Your task to perform on an android device: toggle notification dots Image 0: 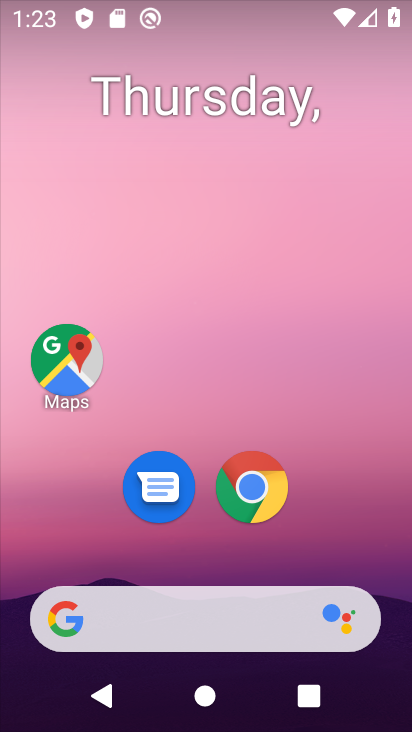
Step 0: drag from (249, 363) to (213, 57)
Your task to perform on an android device: toggle notification dots Image 1: 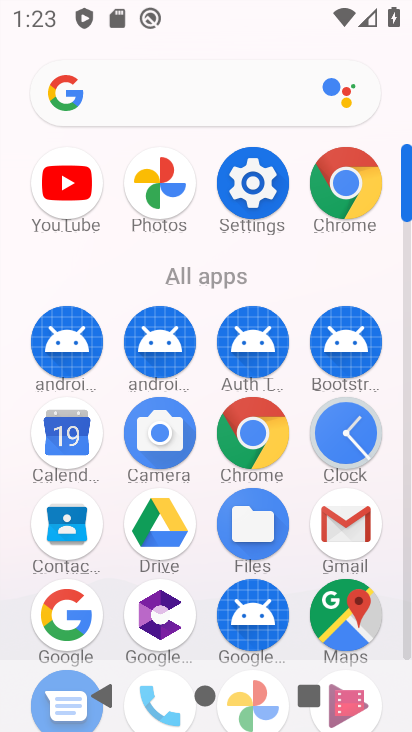
Step 1: drag from (264, 183) to (89, 205)
Your task to perform on an android device: toggle notification dots Image 2: 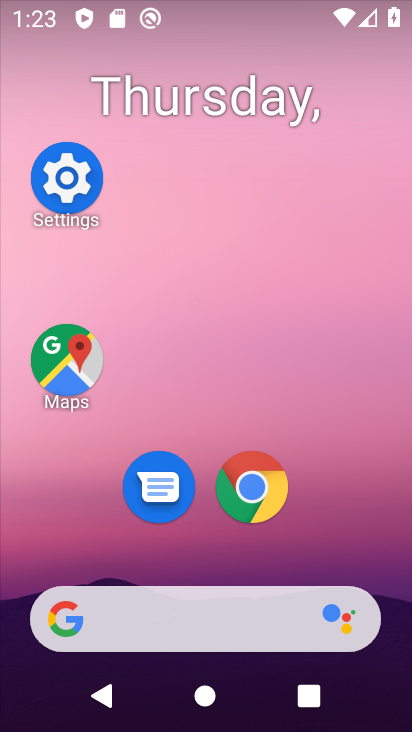
Step 2: click (77, 193)
Your task to perform on an android device: toggle notification dots Image 3: 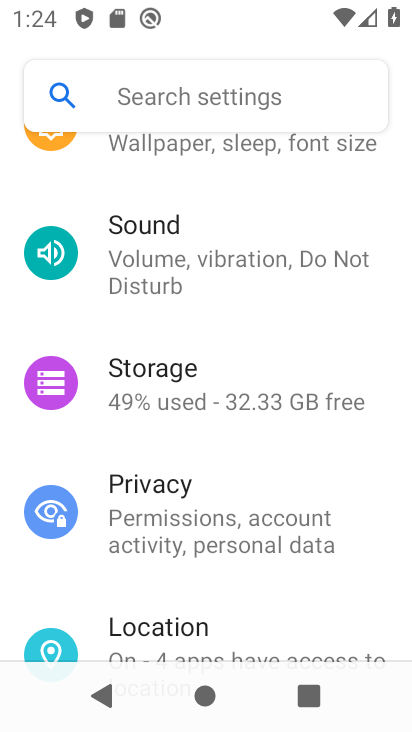
Step 3: drag from (272, 233) to (354, 581)
Your task to perform on an android device: toggle notification dots Image 4: 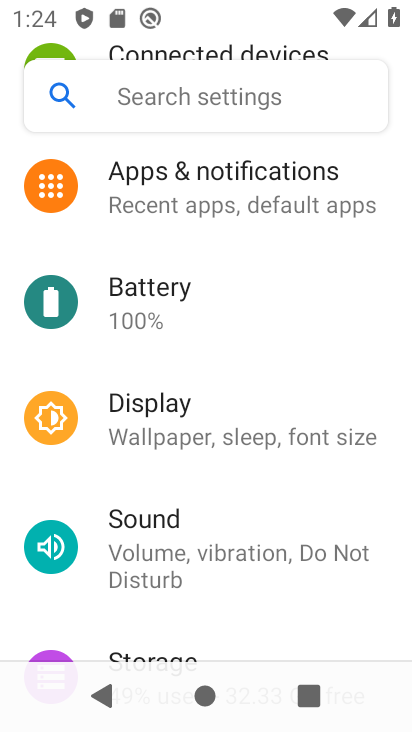
Step 4: click (171, 190)
Your task to perform on an android device: toggle notification dots Image 5: 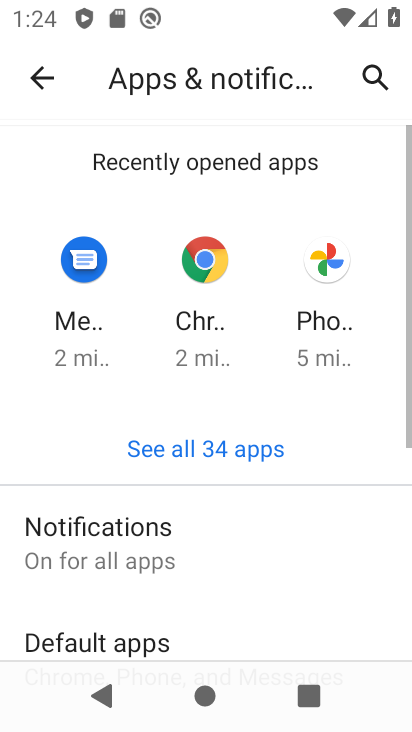
Step 5: click (192, 535)
Your task to perform on an android device: toggle notification dots Image 6: 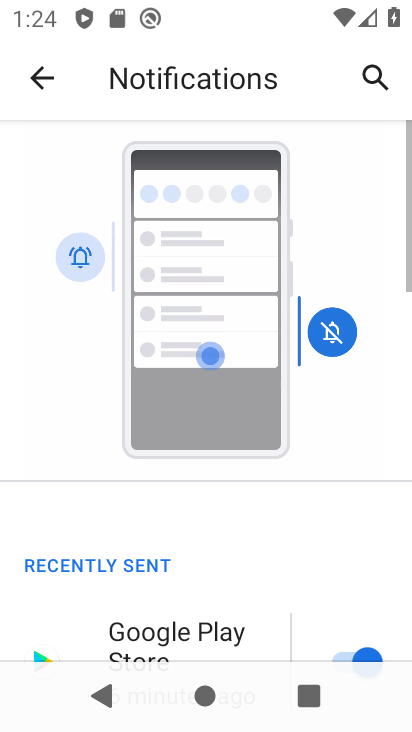
Step 6: drag from (299, 597) to (226, 97)
Your task to perform on an android device: toggle notification dots Image 7: 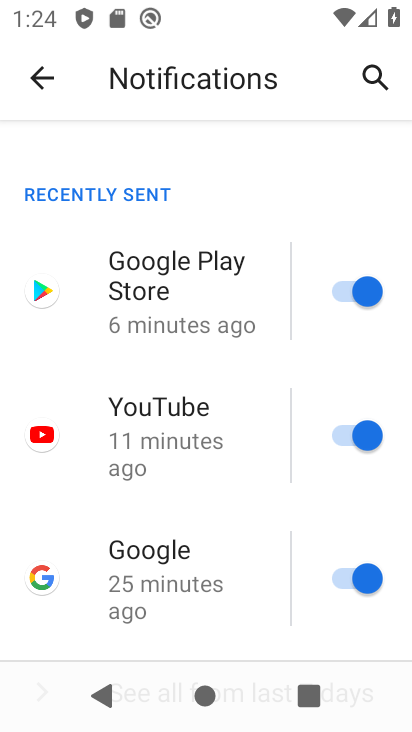
Step 7: drag from (250, 607) to (141, 138)
Your task to perform on an android device: toggle notification dots Image 8: 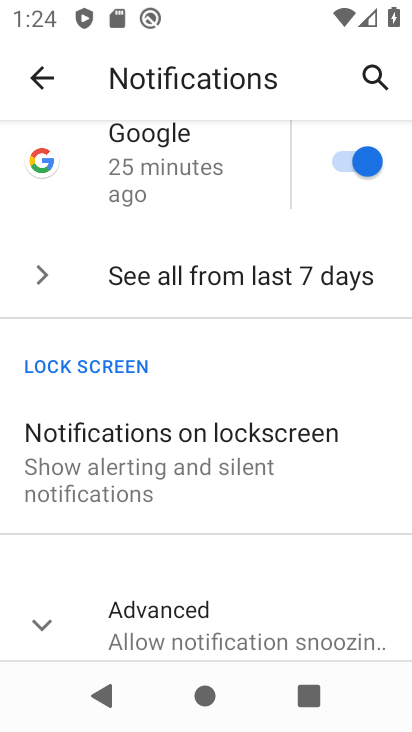
Step 8: click (225, 594)
Your task to perform on an android device: toggle notification dots Image 9: 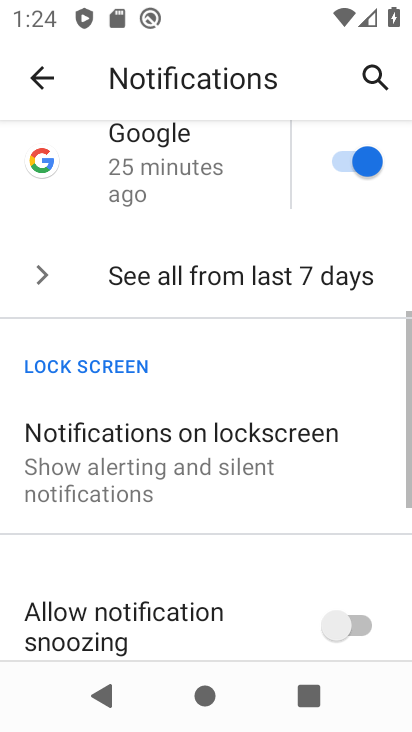
Step 9: drag from (219, 585) to (140, 280)
Your task to perform on an android device: toggle notification dots Image 10: 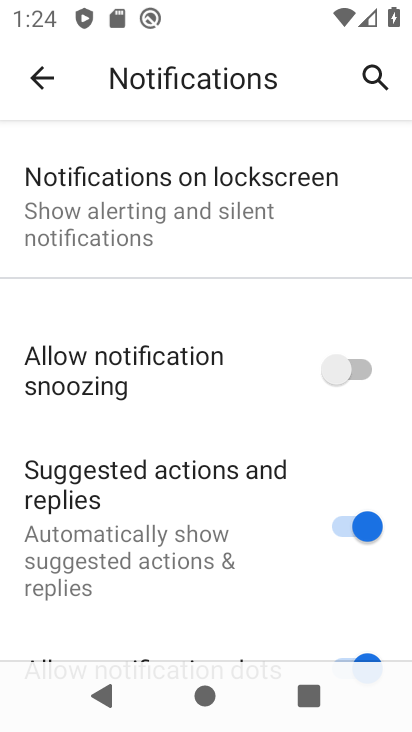
Step 10: drag from (278, 597) to (236, 270)
Your task to perform on an android device: toggle notification dots Image 11: 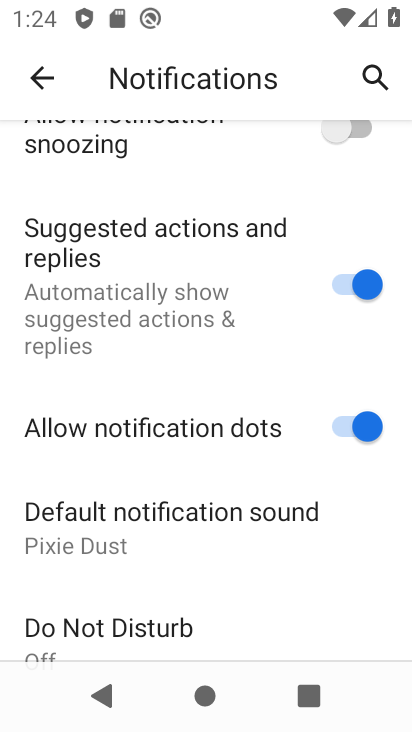
Step 11: click (366, 421)
Your task to perform on an android device: toggle notification dots Image 12: 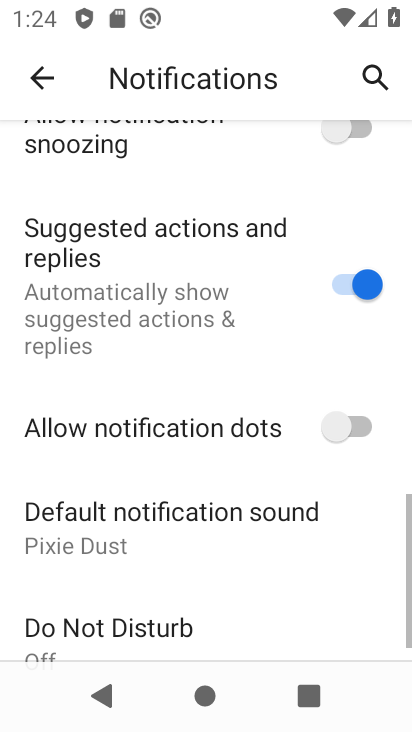
Step 12: task complete